Your task to perform on an android device: turn on improve location accuracy Image 0: 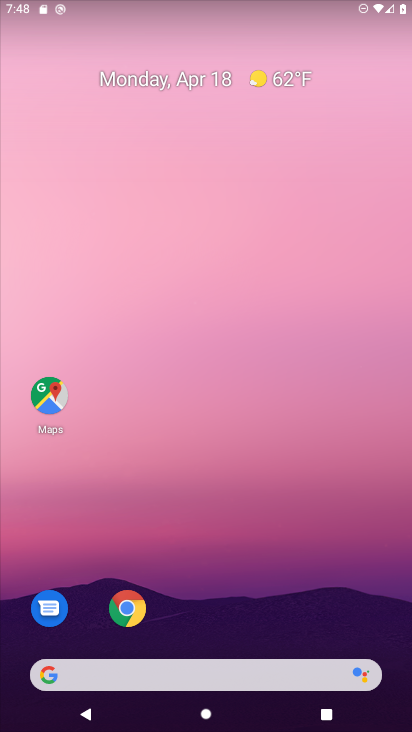
Step 0: drag from (223, 616) to (292, 122)
Your task to perform on an android device: turn on improve location accuracy Image 1: 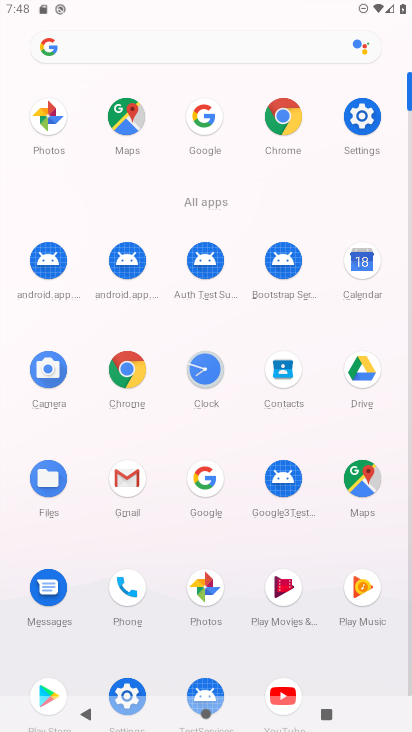
Step 1: click (366, 116)
Your task to perform on an android device: turn on improve location accuracy Image 2: 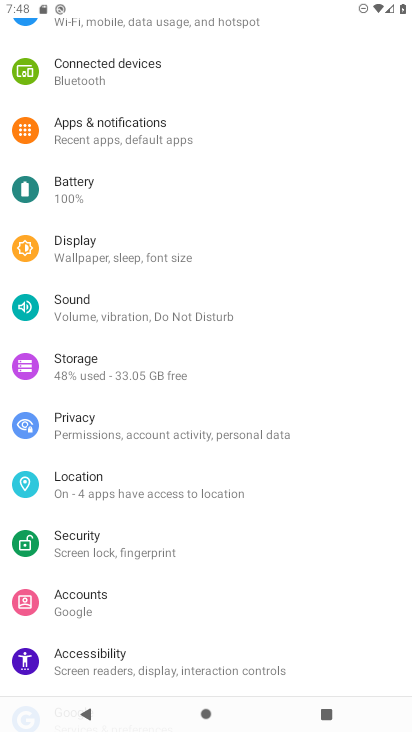
Step 2: drag from (165, 448) to (216, 358)
Your task to perform on an android device: turn on improve location accuracy Image 3: 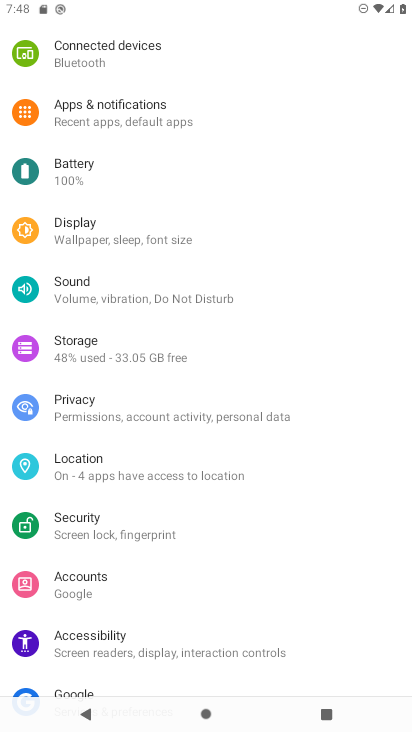
Step 3: click (83, 462)
Your task to perform on an android device: turn on improve location accuracy Image 4: 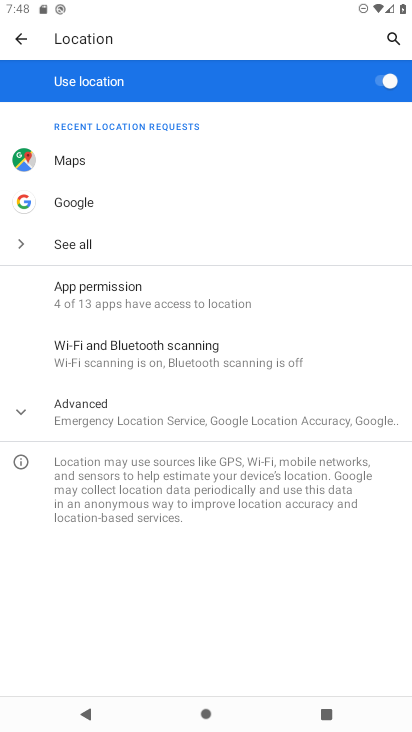
Step 4: click (101, 418)
Your task to perform on an android device: turn on improve location accuracy Image 5: 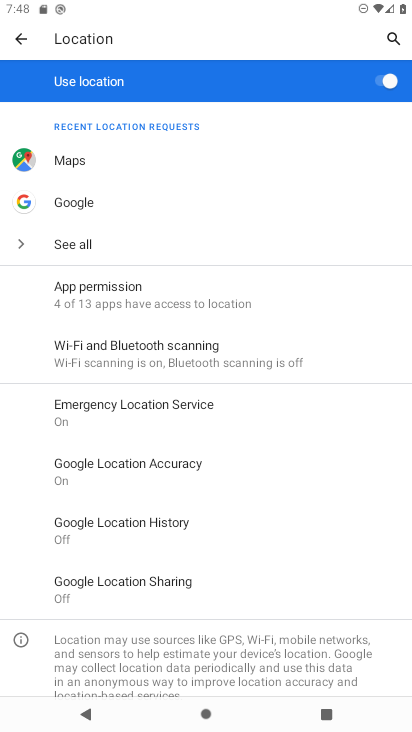
Step 5: click (118, 468)
Your task to perform on an android device: turn on improve location accuracy Image 6: 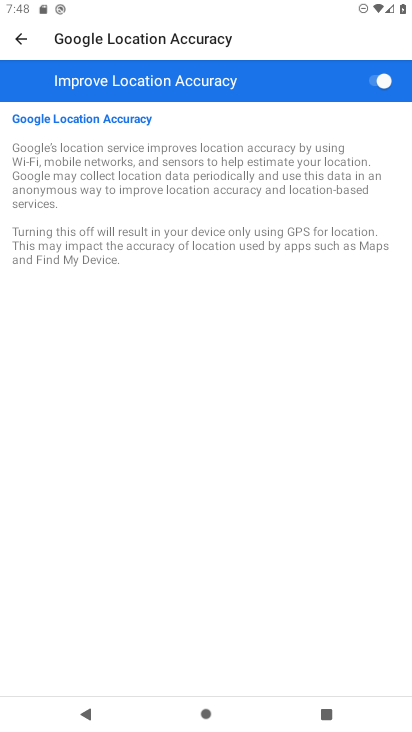
Step 6: task complete